Your task to perform on an android device: toggle improve location accuracy Image 0: 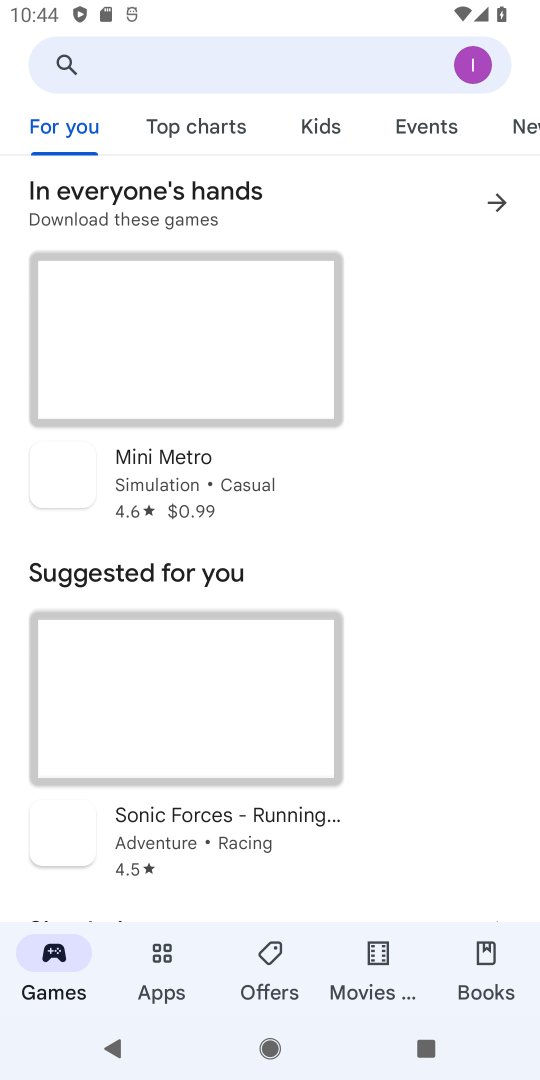
Step 0: press home button
Your task to perform on an android device: toggle improve location accuracy Image 1: 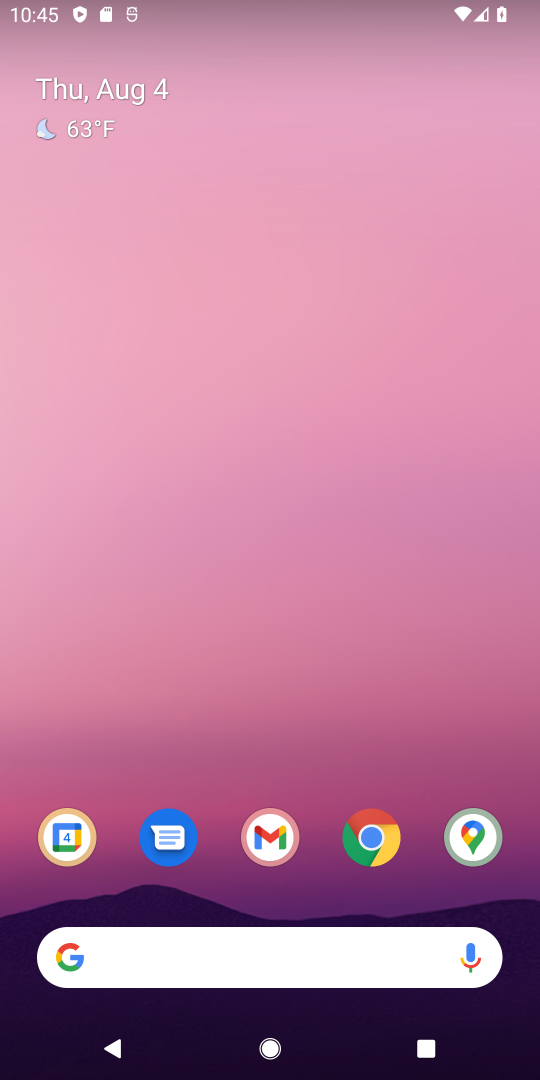
Step 1: drag from (322, 892) to (372, 124)
Your task to perform on an android device: toggle improve location accuracy Image 2: 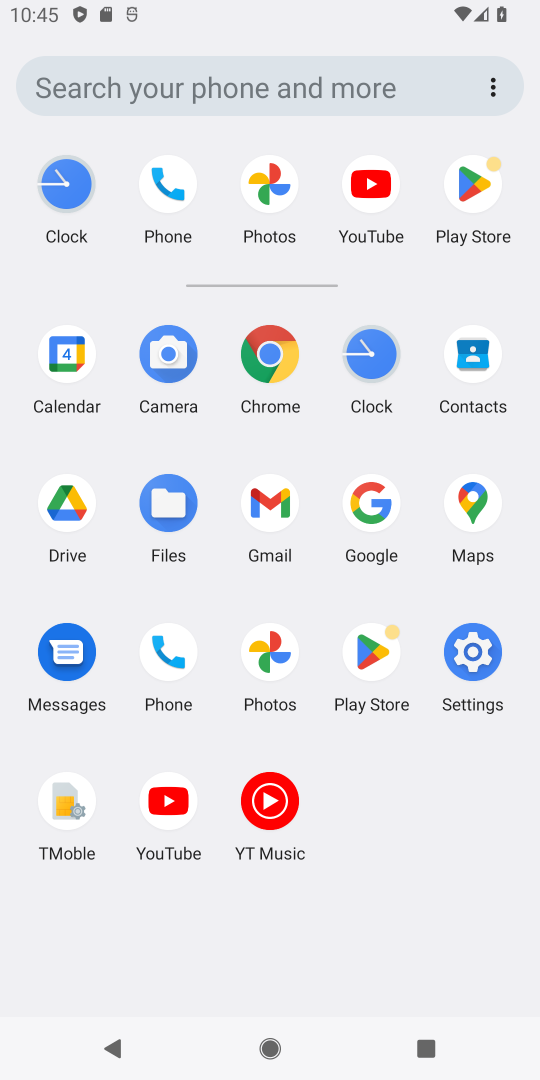
Step 2: click (466, 657)
Your task to perform on an android device: toggle improve location accuracy Image 3: 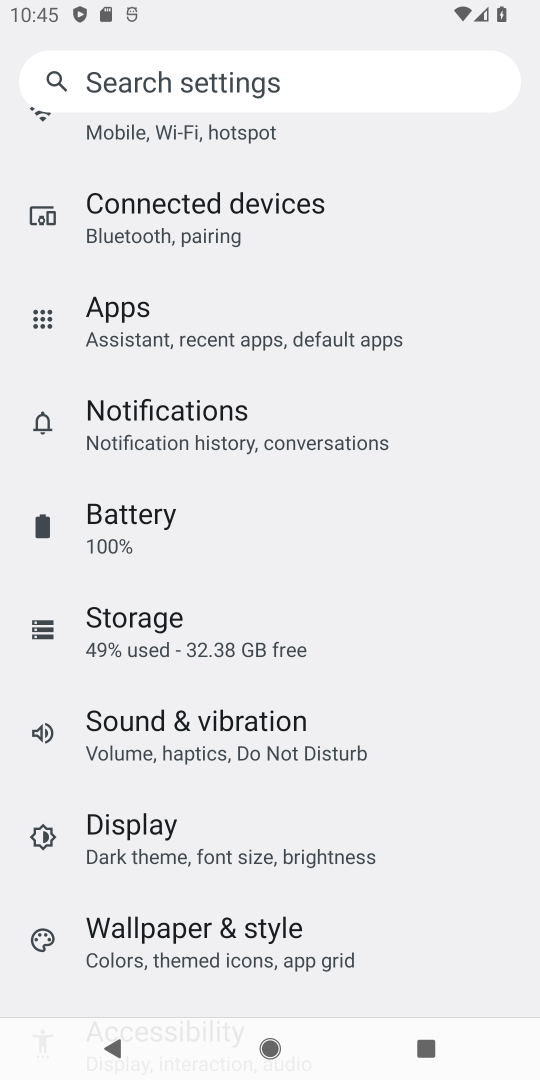
Step 3: drag from (277, 880) to (286, 338)
Your task to perform on an android device: toggle improve location accuracy Image 4: 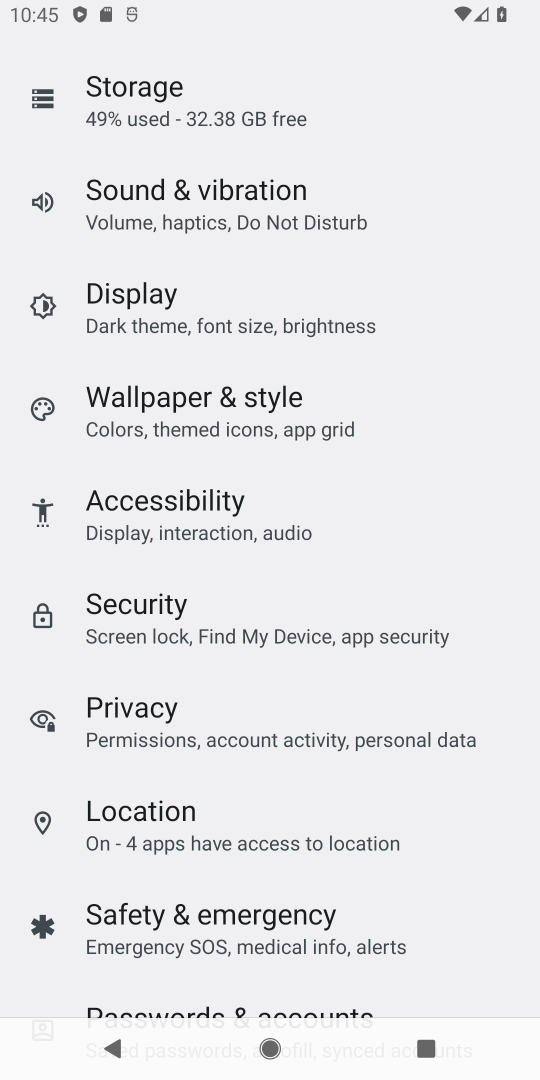
Step 4: click (221, 812)
Your task to perform on an android device: toggle improve location accuracy Image 5: 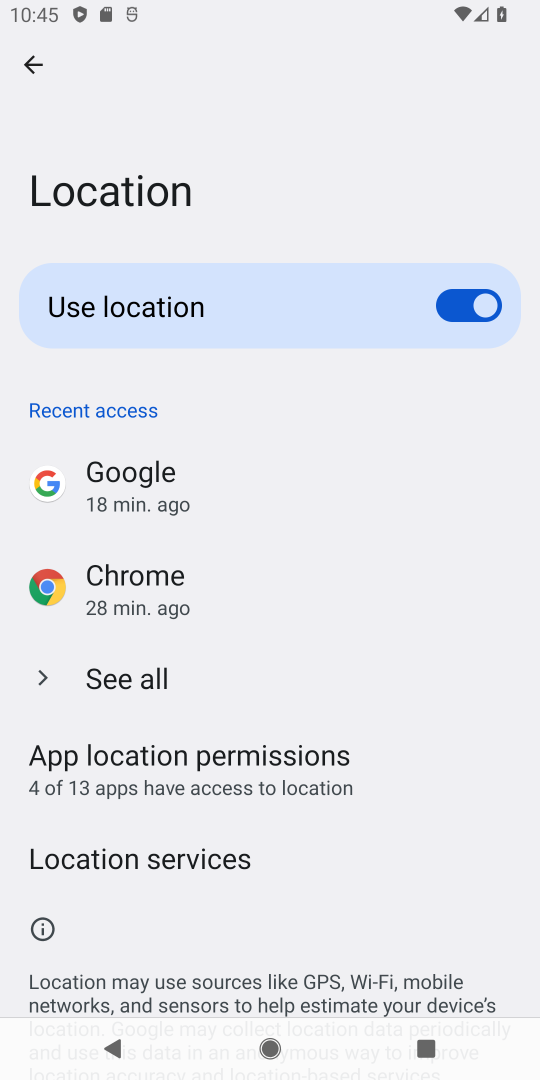
Step 5: click (247, 862)
Your task to perform on an android device: toggle improve location accuracy Image 6: 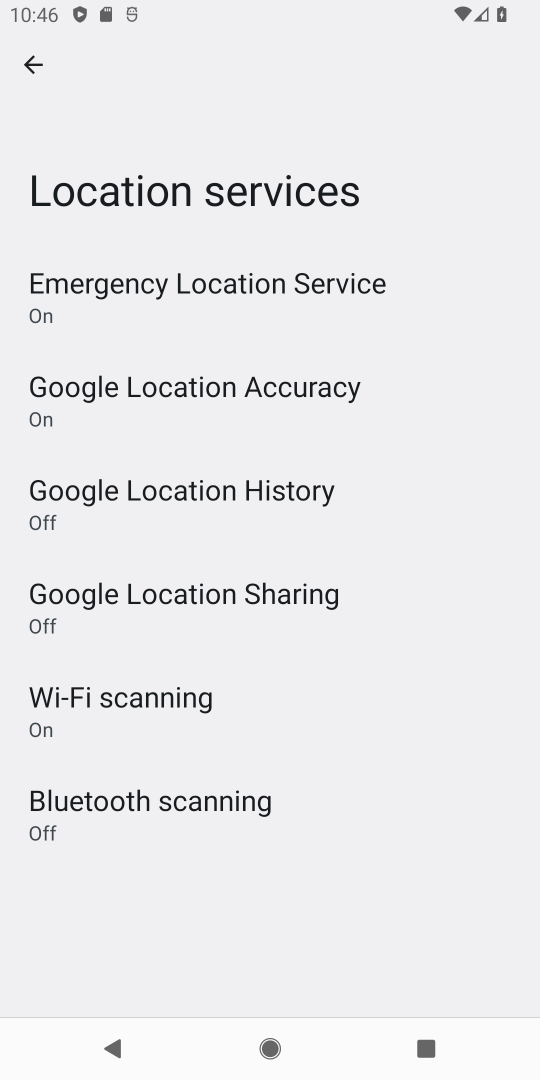
Step 6: click (290, 397)
Your task to perform on an android device: toggle improve location accuracy Image 7: 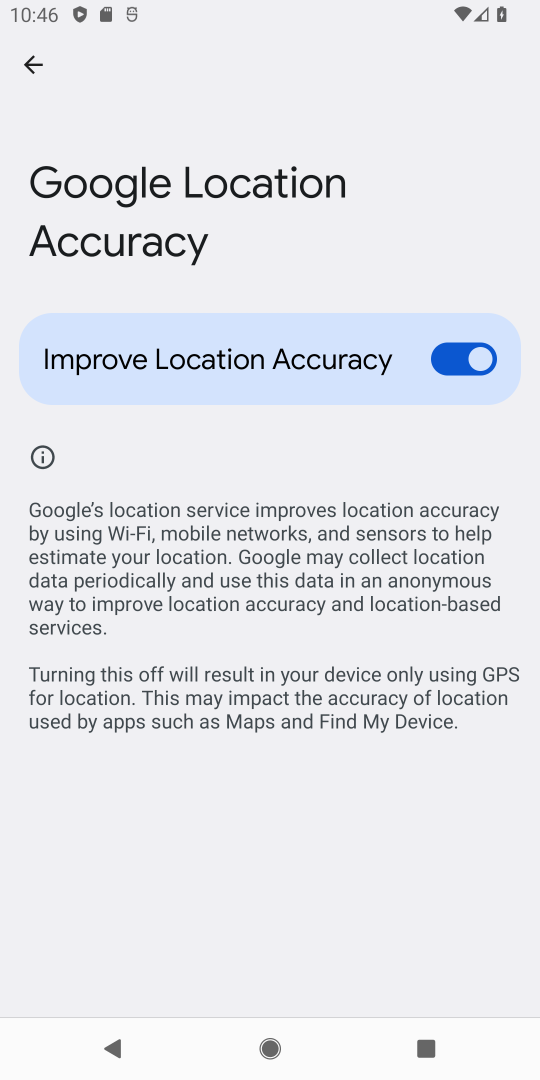
Step 7: click (455, 356)
Your task to perform on an android device: toggle improve location accuracy Image 8: 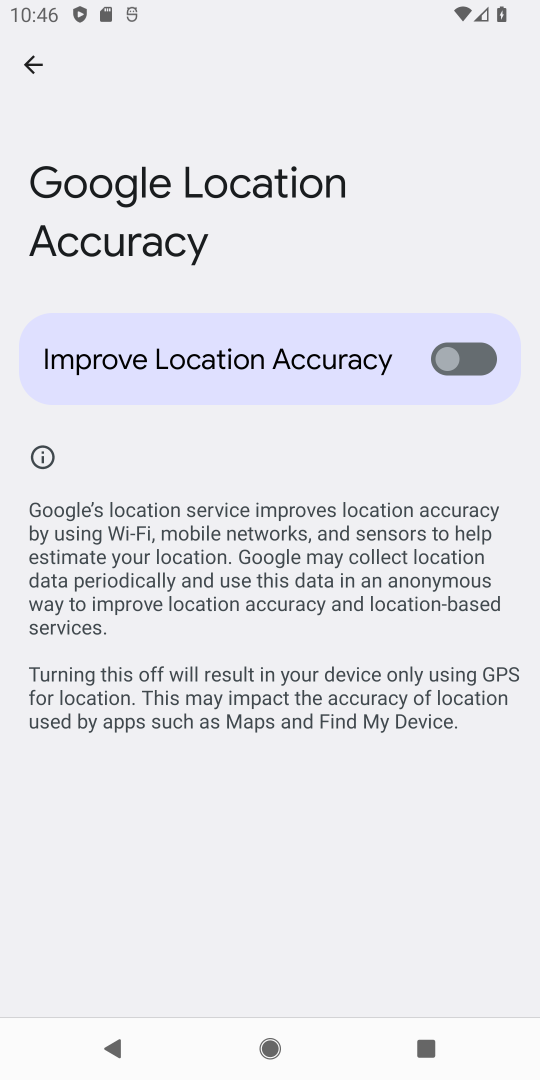
Step 8: task complete